Your task to perform on an android device: Go to Google maps Image 0: 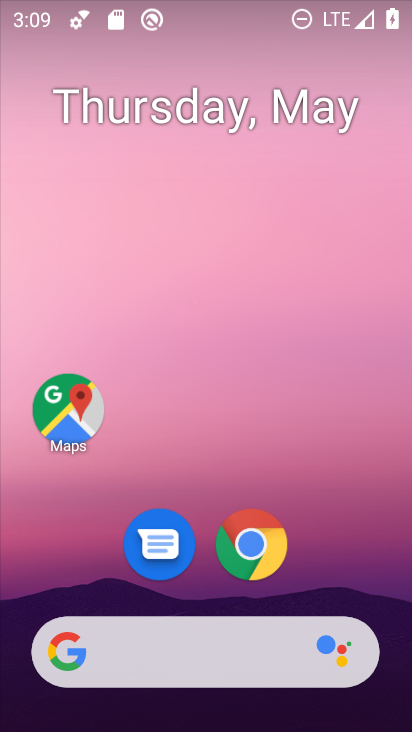
Step 0: click (72, 430)
Your task to perform on an android device: Go to Google maps Image 1: 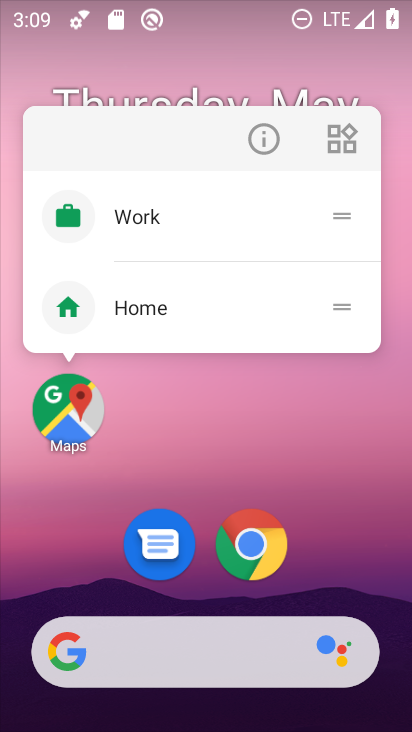
Step 1: click (72, 420)
Your task to perform on an android device: Go to Google maps Image 2: 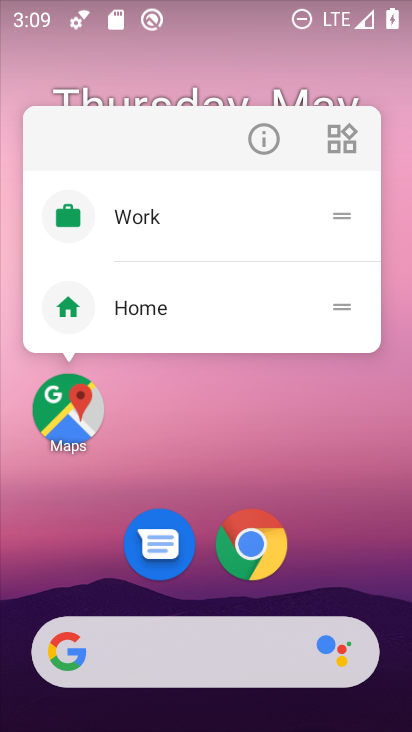
Step 2: click (72, 420)
Your task to perform on an android device: Go to Google maps Image 3: 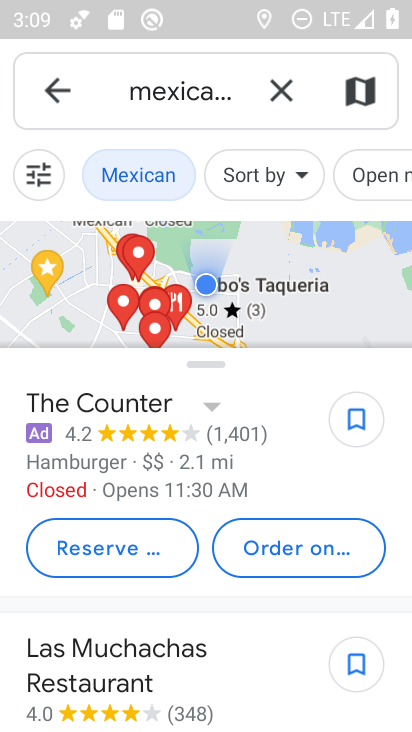
Step 3: task complete